Your task to perform on an android device: Search for vegetarian restaurants on Maps Image 0: 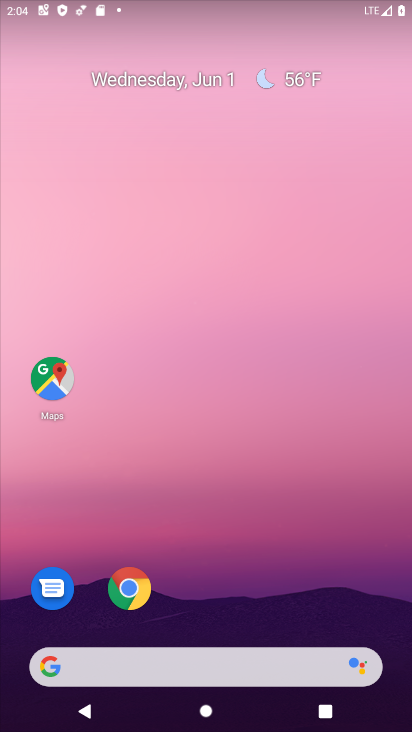
Step 0: drag from (298, 562) to (186, 698)
Your task to perform on an android device: Search for vegetarian restaurants on Maps Image 1: 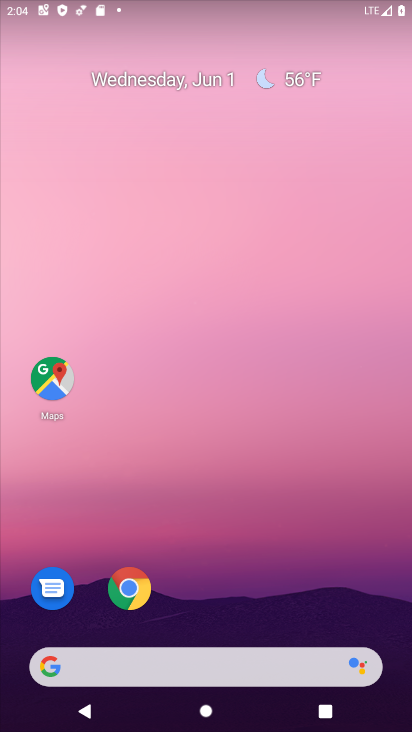
Step 1: click (49, 377)
Your task to perform on an android device: Search for vegetarian restaurants on Maps Image 2: 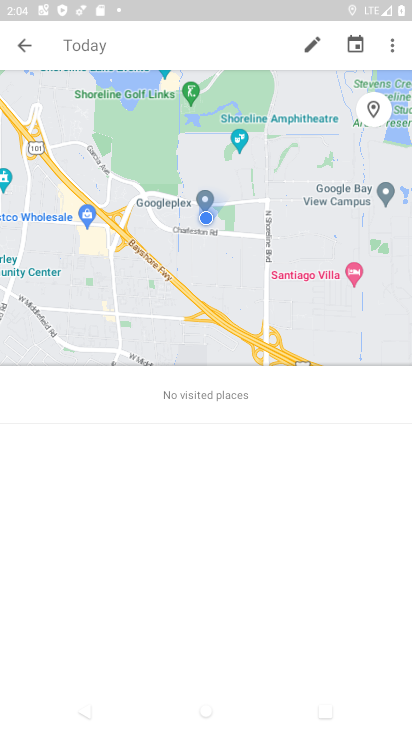
Step 2: click (24, 50)
Your task to perform on an android device: Search for vegetarian restaurants on Maps Image 3: 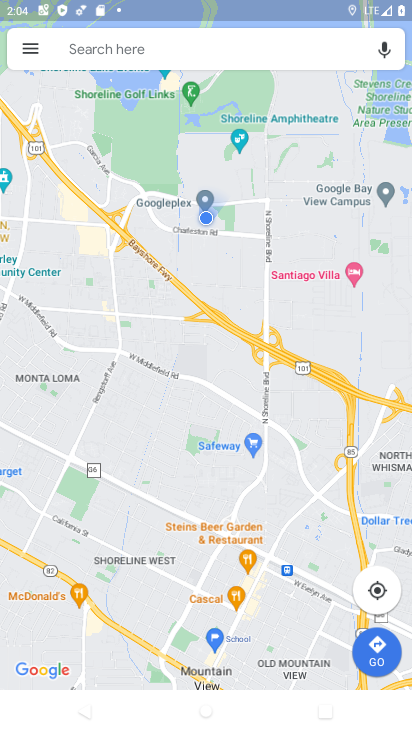
Step 3: click (164, 53)
Your task to perform on an android device: Search for vegetarian restaurants on Maps Image 4: 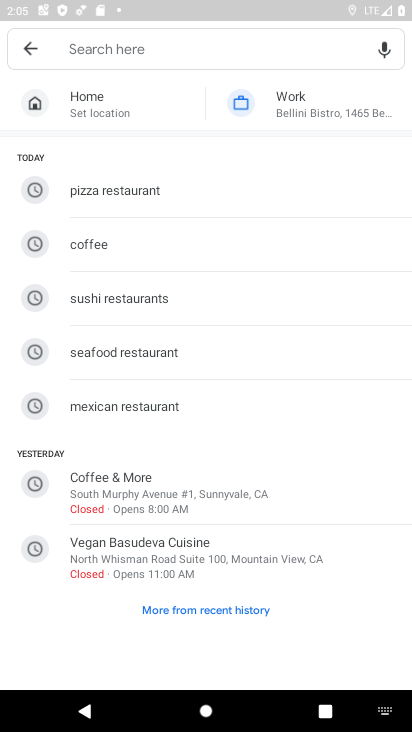
Step 4: type "vegetarian restauratns"
Your task to perform on an android device: Search for vegetarian restaurants on Maps Image 5: 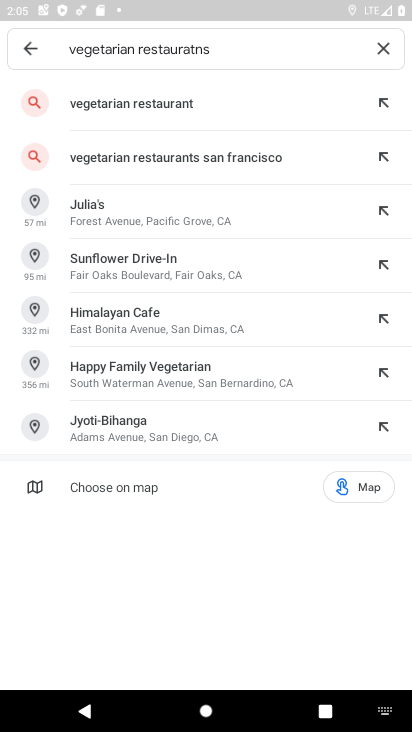
Step 5: click (164, 107)
Your task to perform on an android device: Search for vegetarian restaurants on Maps Image 6: 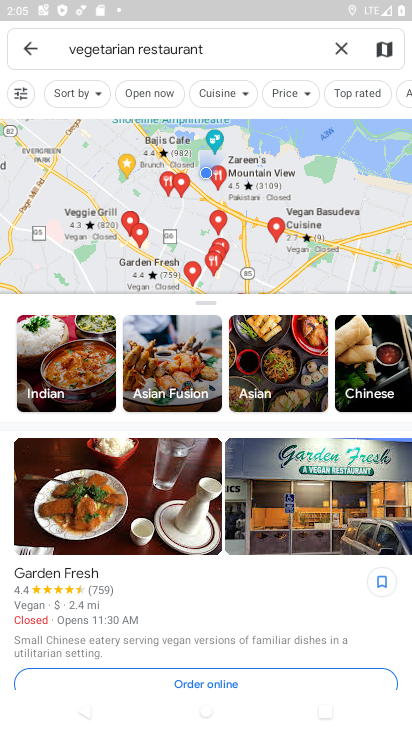
Step 6: task complete